Your task to perform on an android device: allow notifications from all sites in the chrome app Image 0: 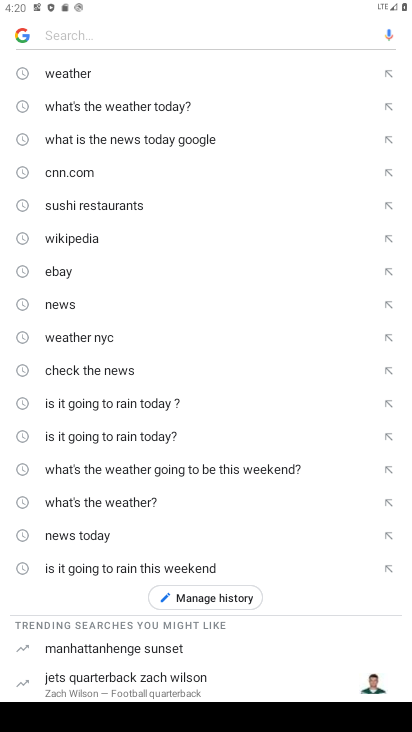
Step 0: press home button
Your task to perform on an android device: allow notifications from all sites in the chrome app Image 1: 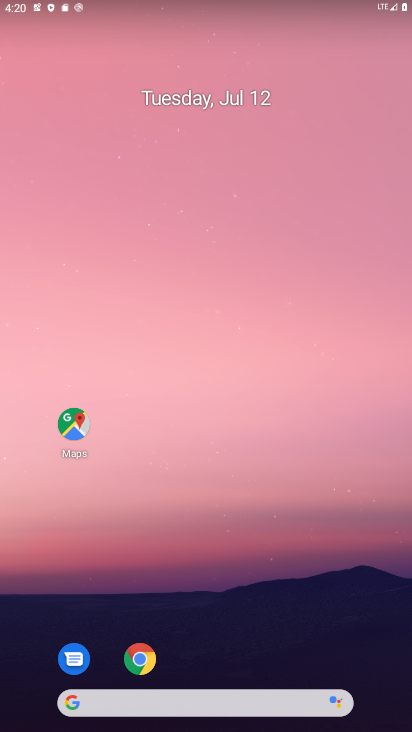
Step 1: click (141, 653)
Your task to perform on an android device: allow notifications from all sites in the chrome app Image 2: 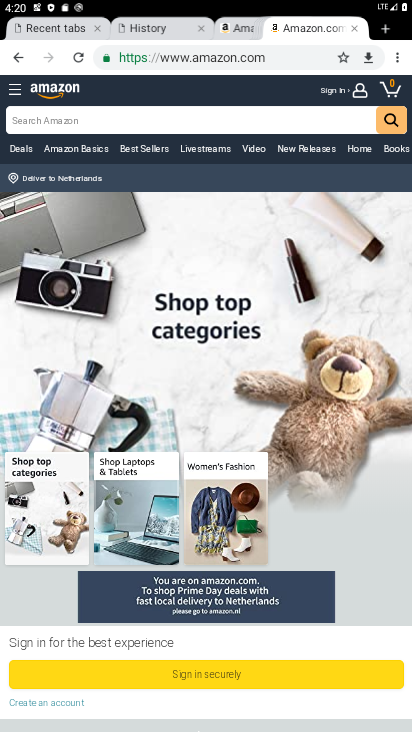
Step 2: click (397, 58)
Your task to perform on an android device: allow notifications from all sites in the chrome app Image 3: 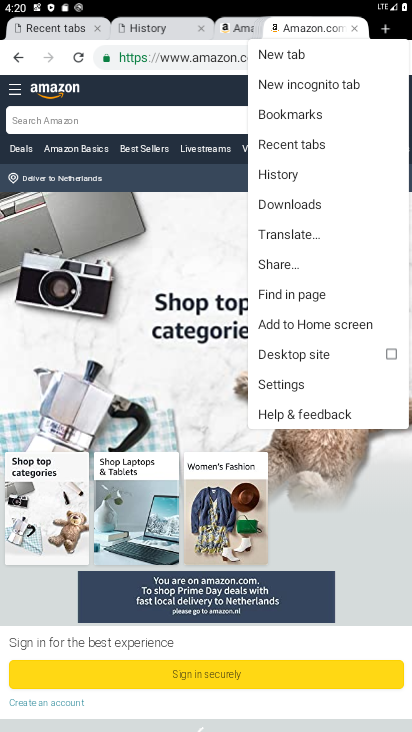
Step 3: click (284, 380)
Your task to perform on an android device: allow notifications from all sites in the chrome app Image 4: 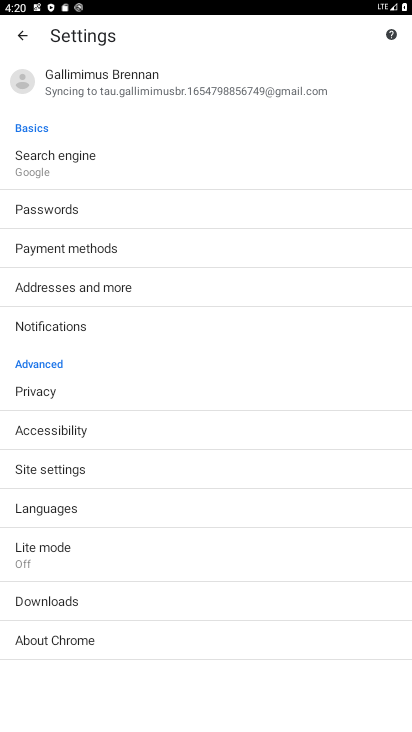
Step 4: click (39, 468)
Your task to perform on an android device: allow notifications from all sites in the chrome app Image 5: 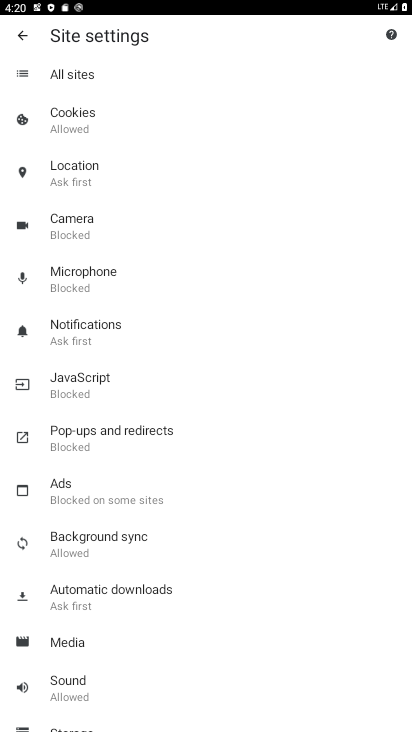
Step 5: click (85, 323)
Your task to perform on an android device: allow notifications from all sites in the chrome app Image 6: 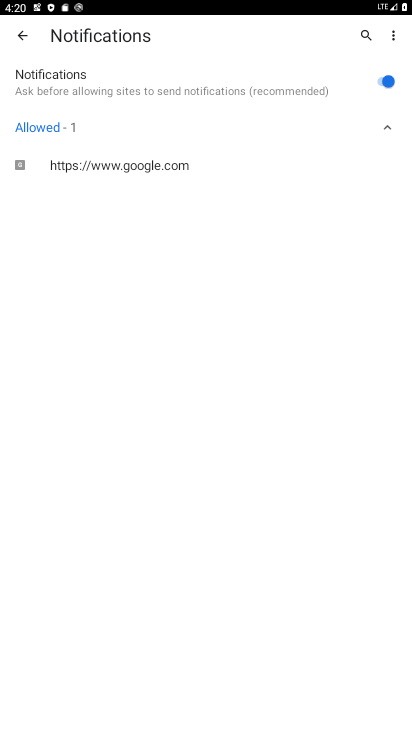
Step 6: task complete